Your task to perform on an android device: change alarm snooze length Image 0: 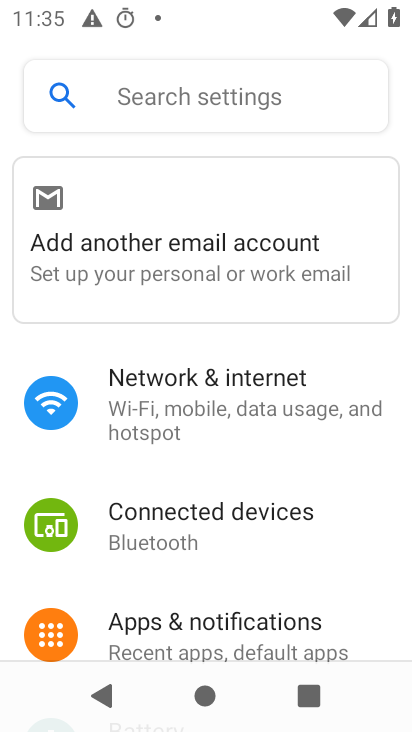
Step 0: press back button
Your task to perform on an android device: change alarm snooze length Image 1: 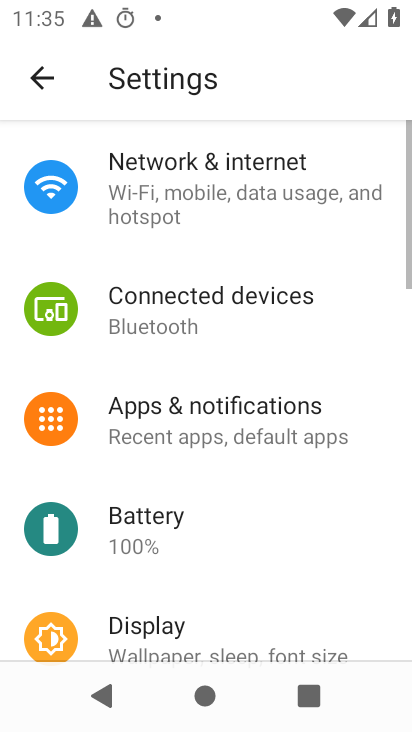
Step 1: press back button
Your task to perform on an android device: change alarm snooze length Image 2: 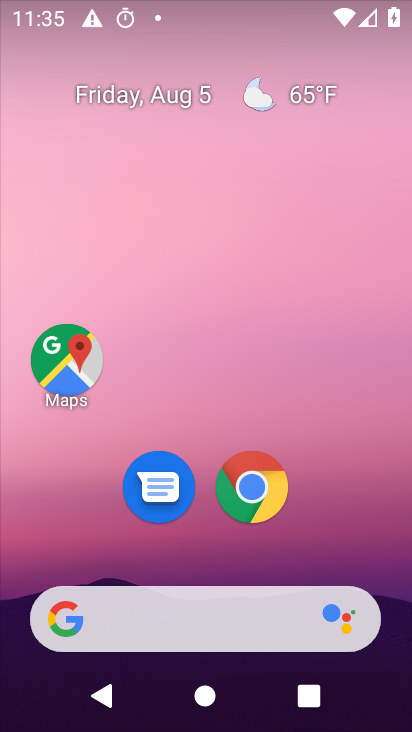
Step 2: drag from (164, 577) to (248, 103)
Your task to perform on an android device: change alarm snooze length Image 3: 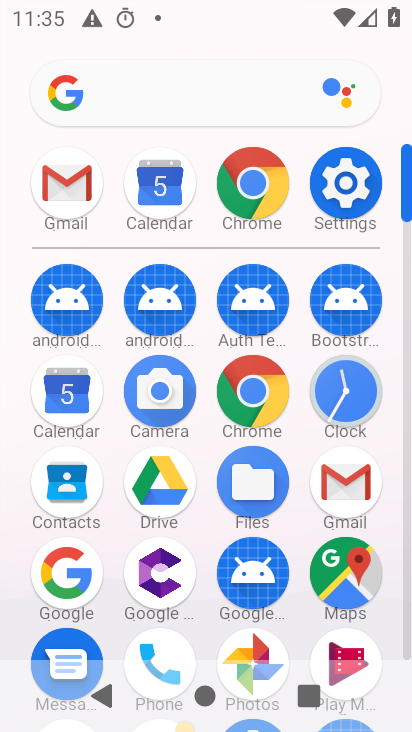
Step 3: click (343, 399)
Your task to perform on an android device: change alarm snooze length Image 4: 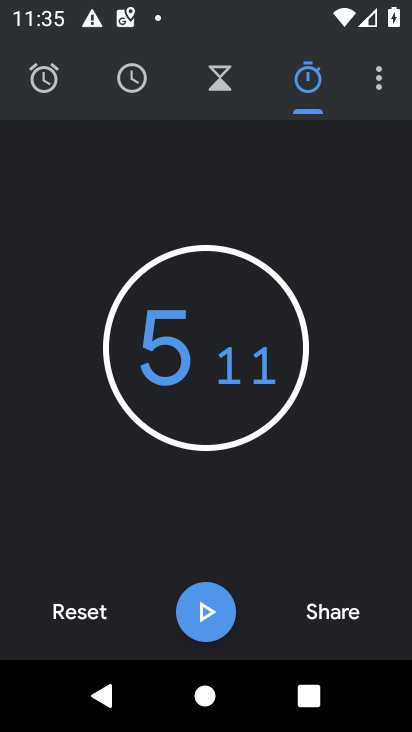
Step 4: click (59, 62)
Your task to perform on an android device: change alarm snooze length Image 5: 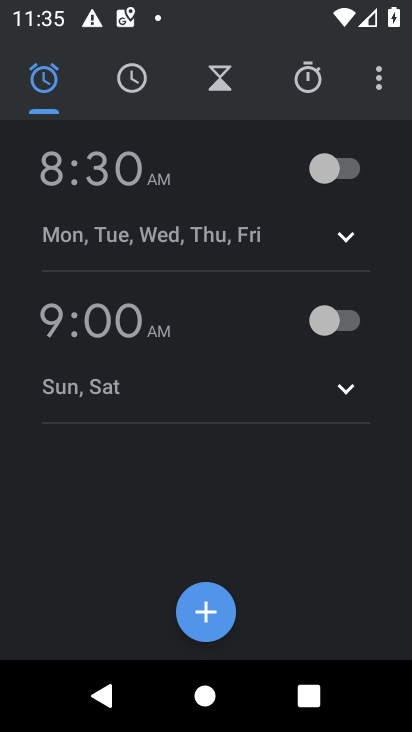
Step 5: click (383, 64)
Your task to perform on an android device: change alarm snooze length Image 6: 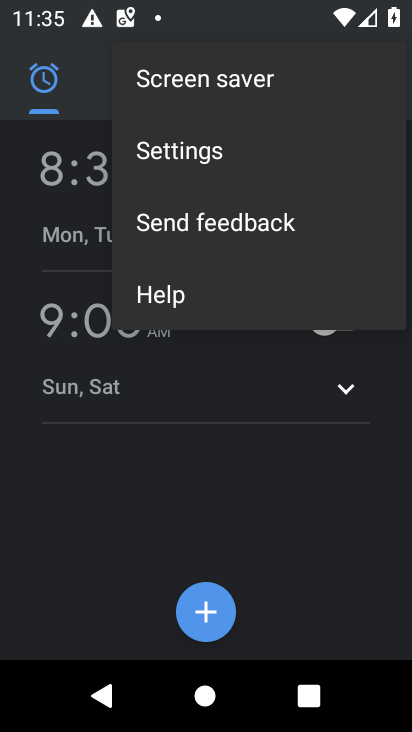
Step 6: click (246, 165)
Your task to perform on an android device: change alarm snooze length Image 7: 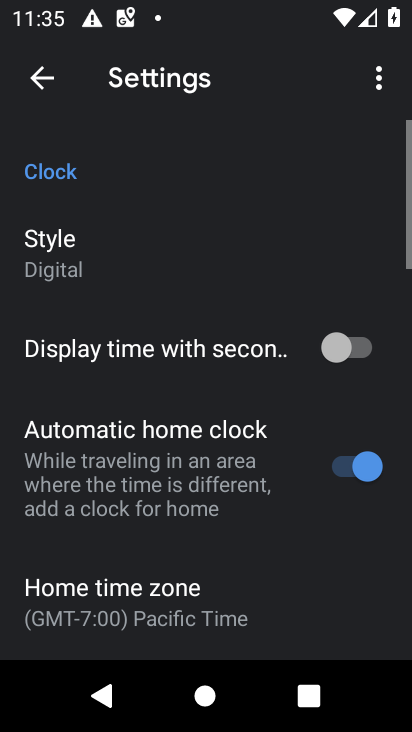
Step 7: drag from (149, 600) to (270, 65)
Your task to perform on an android device: change alarm snooze length Image 8: 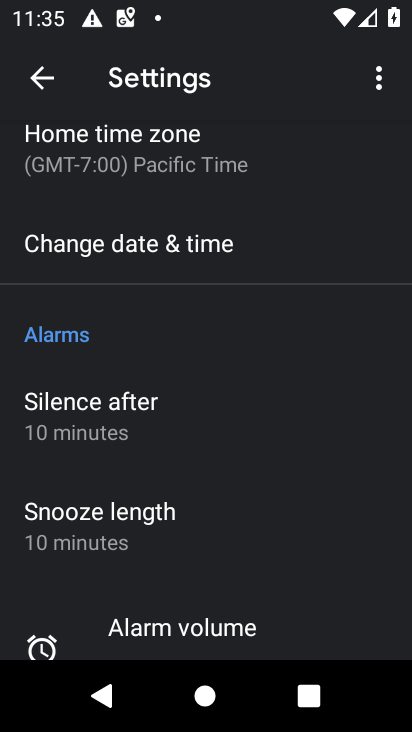
Step 8: click (115, 512)
Your task to perform on an android device: change alarm snooze length Image 9: 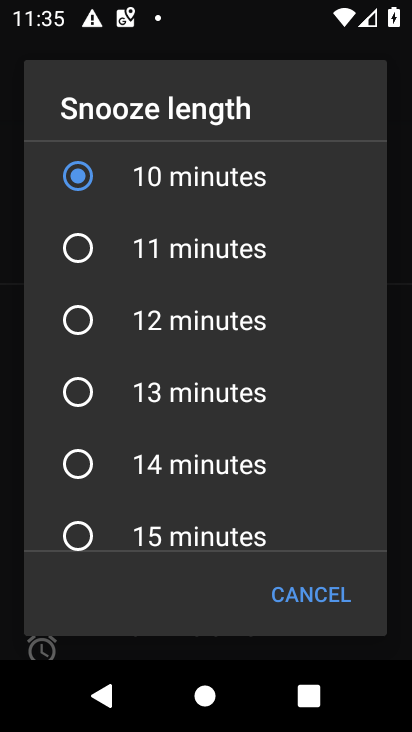
Step 9: click (78, 246)
Your task to perform on an android device: change alarm snooze length Image 10: 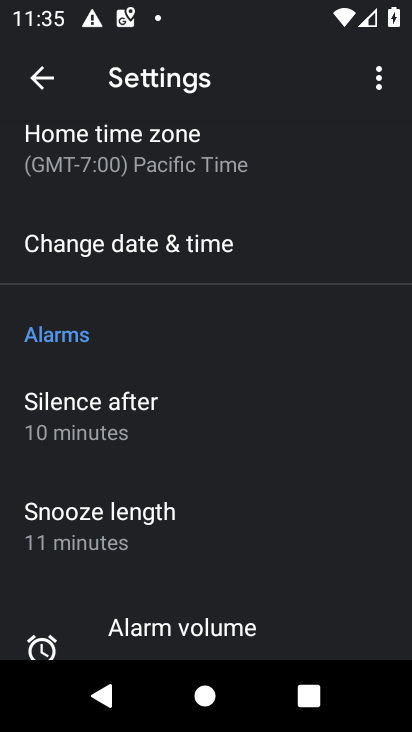
Step 10: task complete